Your task to perform on an android device: toggle notification dots Image 0: 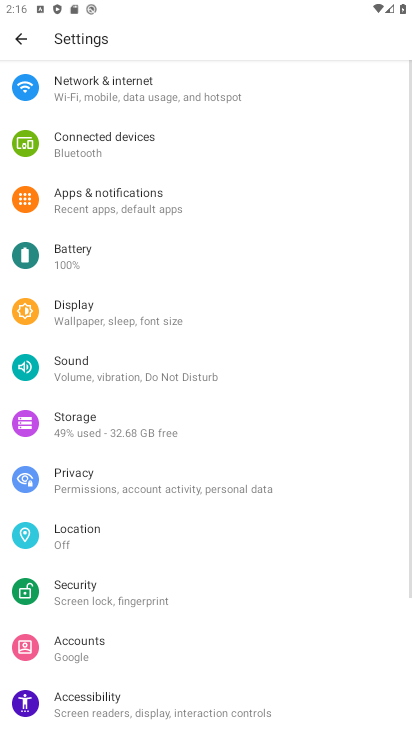
Step 0: press back button
Your task to perform on an android device: toggle notification dots Image 1: 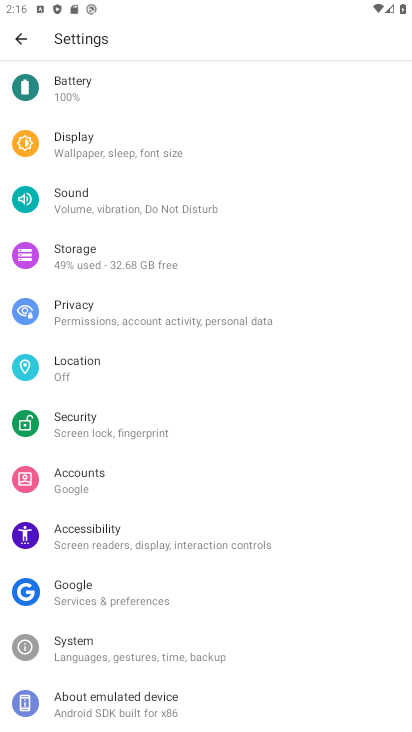
Step 1: press back button
Your task to perform on an android device: toggle notification dots Image 2: 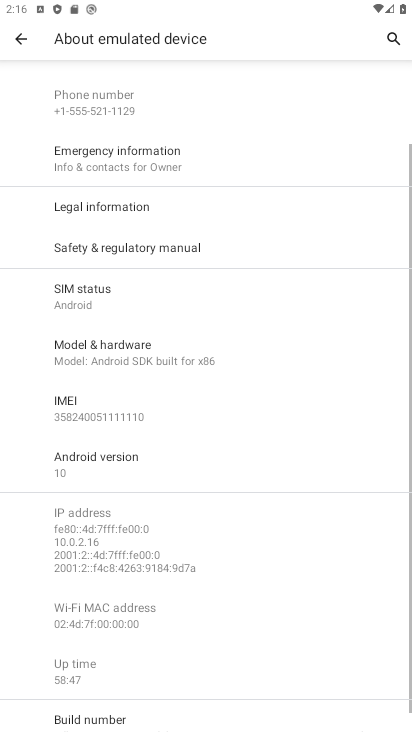
Step 2: press back button
Your task to perform on an android device: toggle notification dots Image 3: 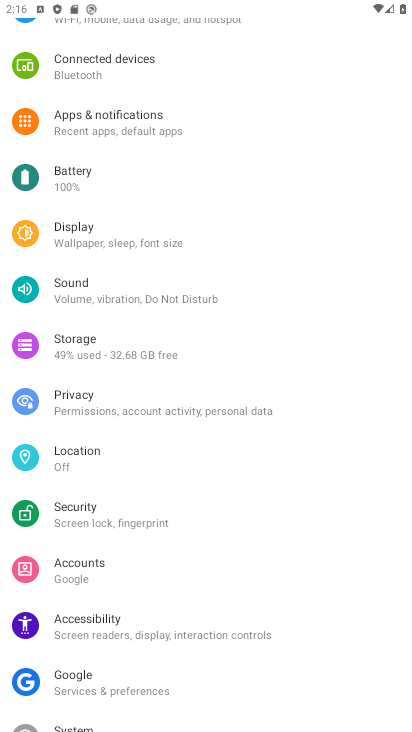
Step 3: click (159, 112)
Your task to perform on an android device: toggle notification dots Image 4: 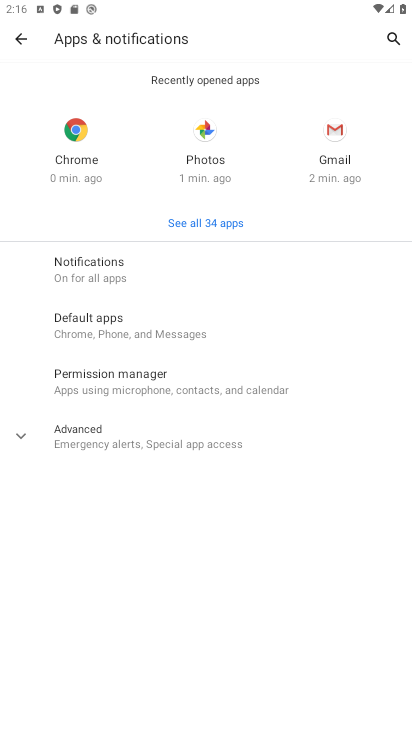
Step 4: click (50, 269)
Your task to perform on an android device: toggle notification dots Image 5: 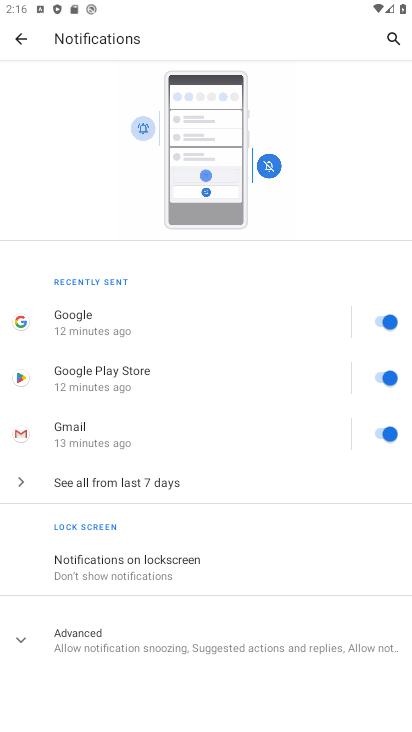
Step 5: drag from (164, 645) to (229, 170)
Your task to perform on an android device: toggle notification dots Image 6: 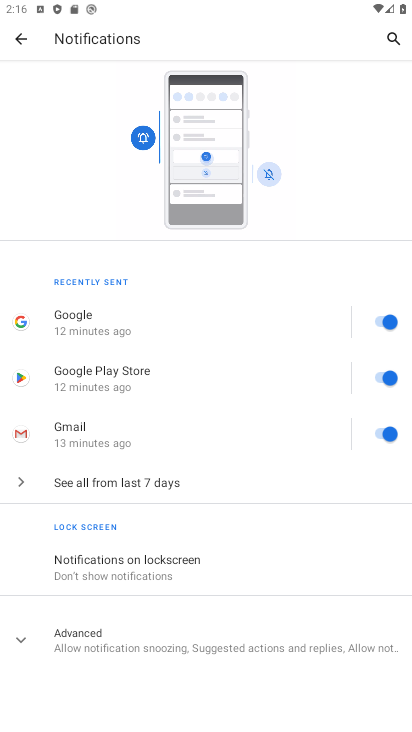
Step 6: click (131, 641)
Your task to perform on an android device: toggle notification dots Image 7: 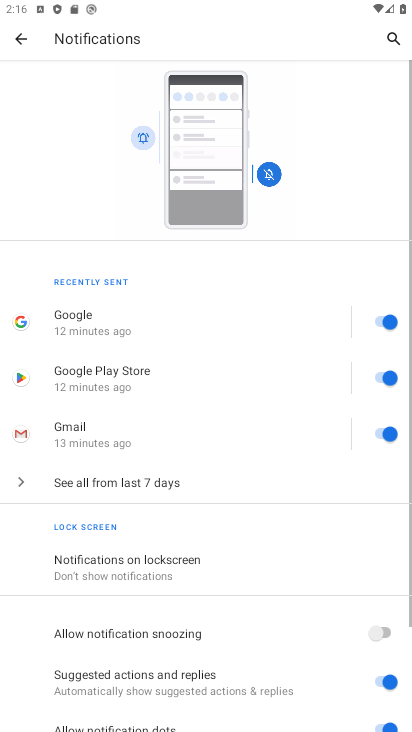
Step 7: drag from (131, 641) to (226, 178)
Your task to perform on an android device: toggle notification dots Image 8: 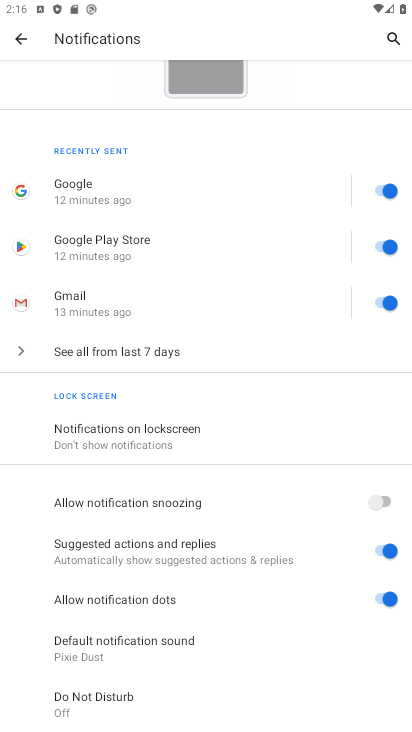
Step 8: click (392, 598)
Your task to perform on an android device: toggle notification dots Image 9: 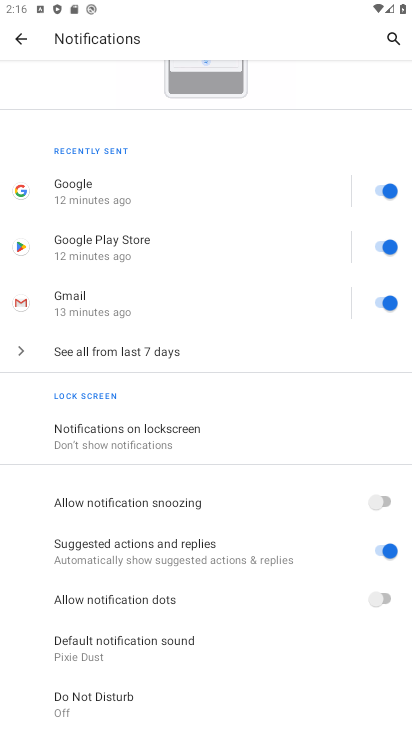
Step 9: task complete